Your task to perform on an android device: find snoozed emails in the gmail app Image 0: 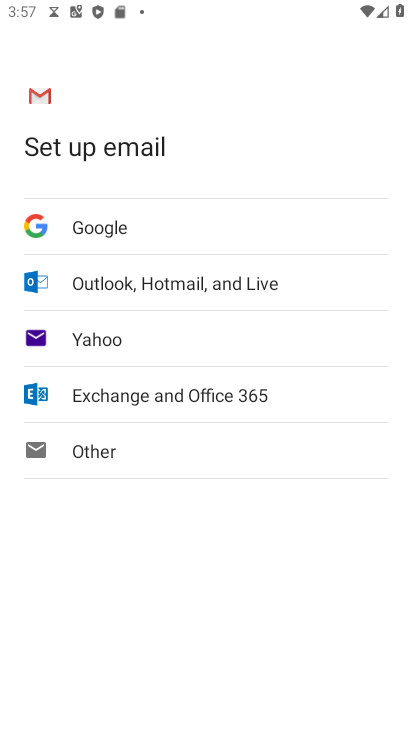
Step 0: drag from (267, 675) to (260, 215)
Your task to perform on an android device: find snoozed emails in the gmail app Image 1: 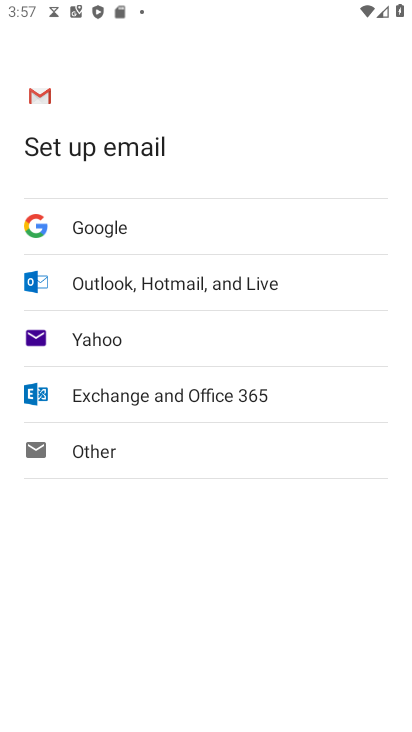
Step 1: press home button
Your task to perform on an android device: find snoozed emails in the gmail app Image 2: 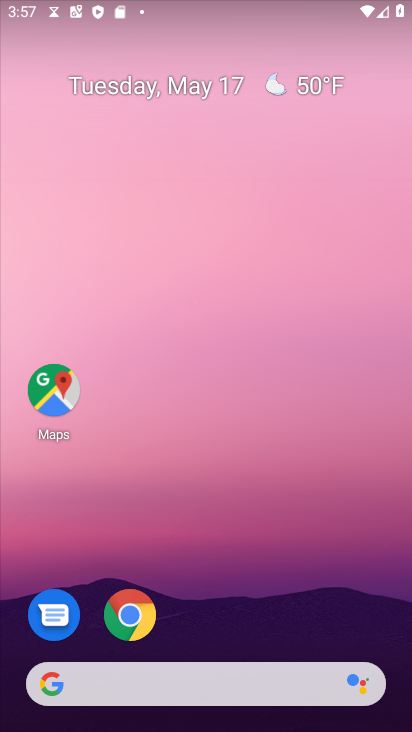
Step 2: drag from (263, 680) to (221, 0)
Your task to perform on an android device: find snoozed emails in the gmail app Image 3: 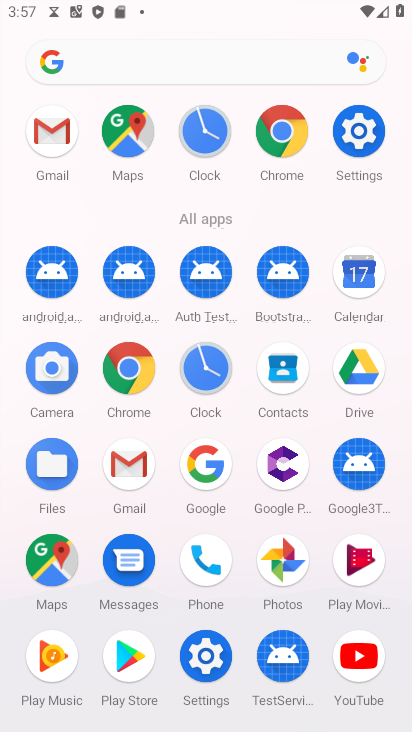
Step 3: click (124, 469)
Your task to perform on an android device: find snoozed emails in the gmail app Image 4: 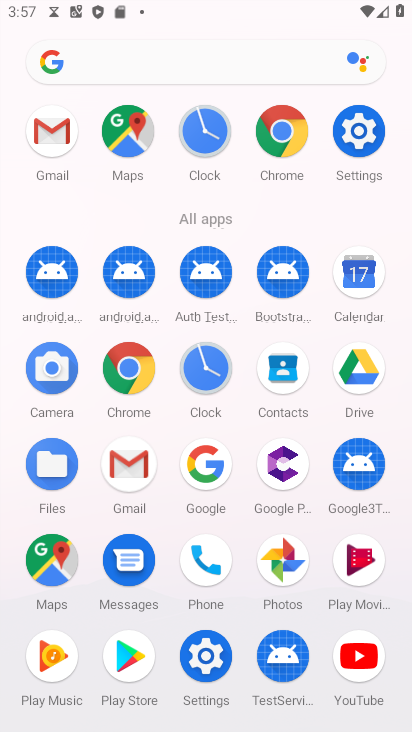
Step 4: click (124, 468)
Your task to perform on an android device: find snoozed emails in the gmail app Image 5: 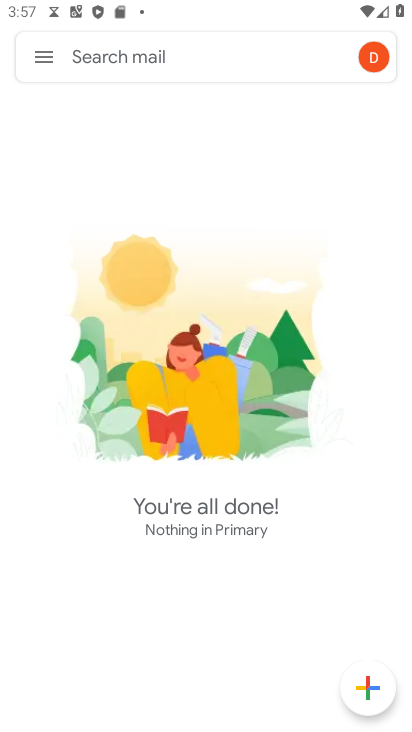
Step 5: click (42, 61)
Your task to perform on an android device: find snoozed emails in the gmail app Image 6: 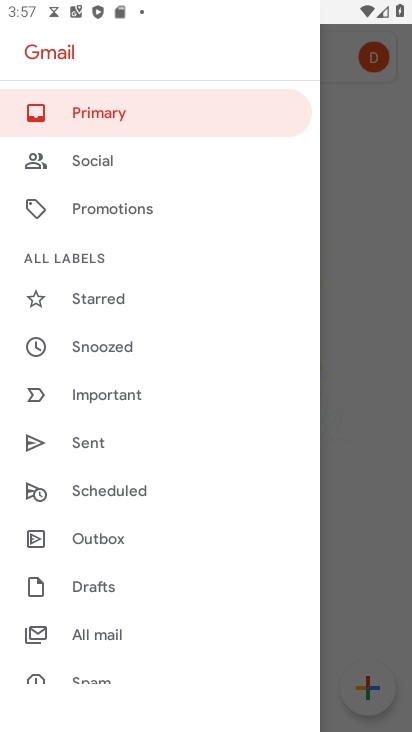
Step 6: click (93, 349)
Your task to perform on an android device: find snoozed emails in the gmail app Image 7: 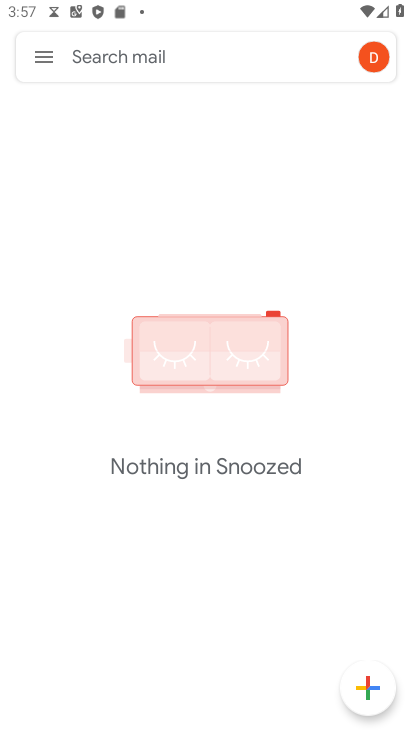
Step 7: task complete